Your task to perform on an android device: open app "Mercado Libre" Image 0: 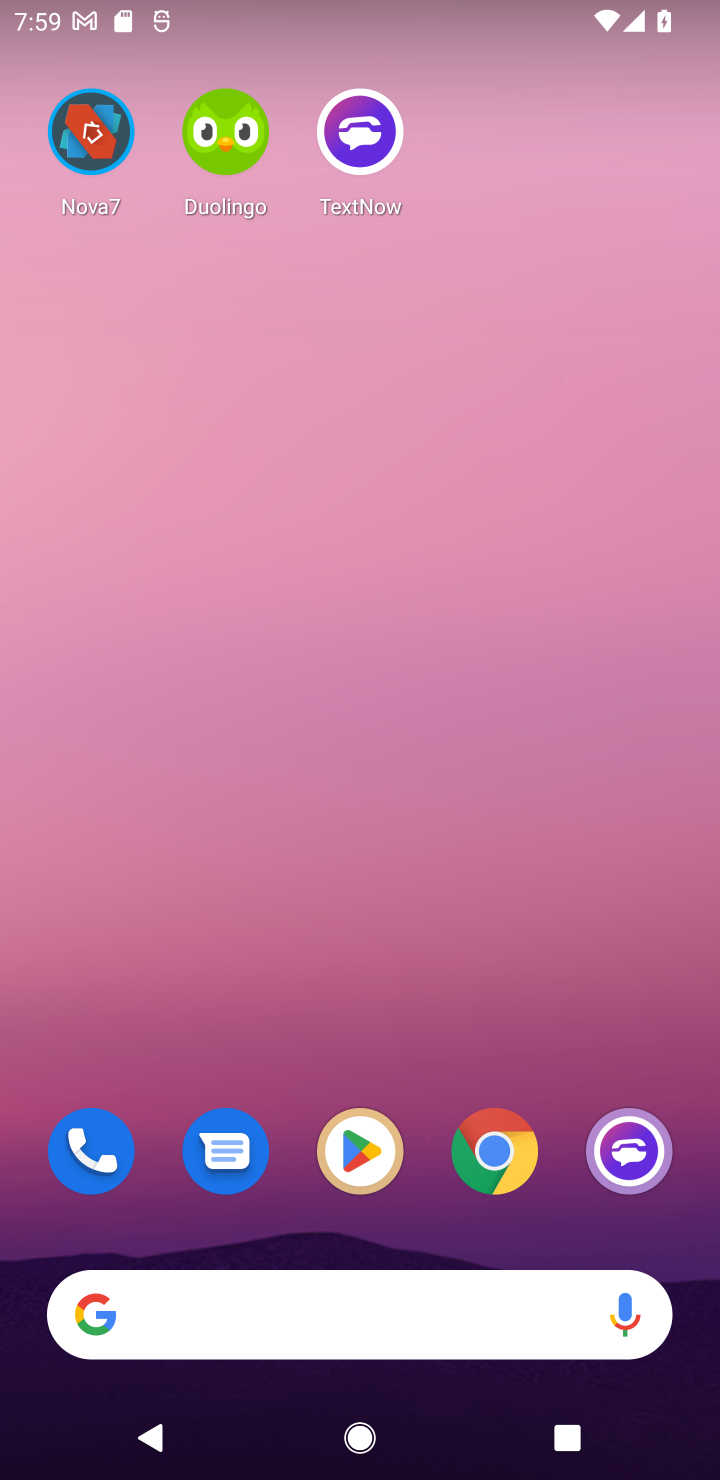
Step 0: click (355, 1157)
Your task to perform on an android device: open app "Mercado Libre" Image 1: 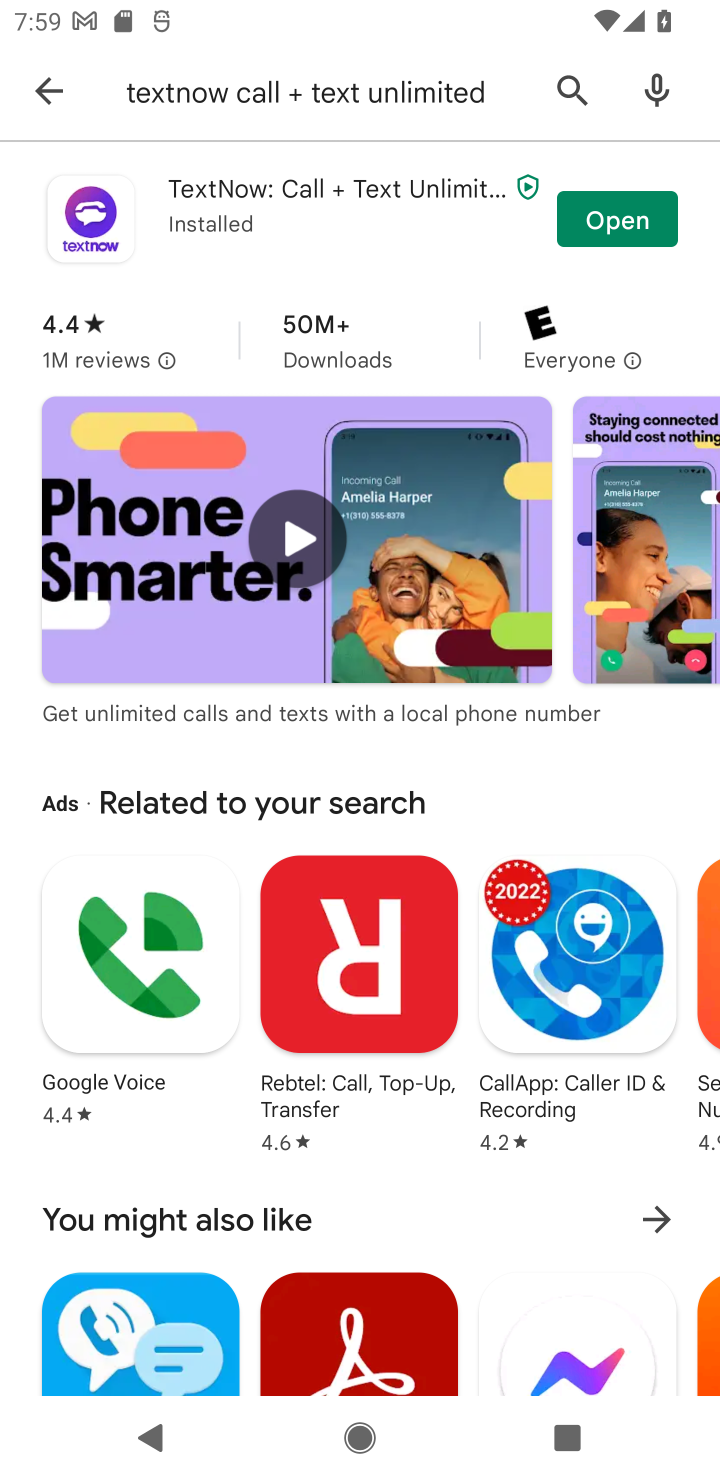
Step 1: click (41, 89)
Your task to perform on an android device: open app "Mercado Libre" Image 2: 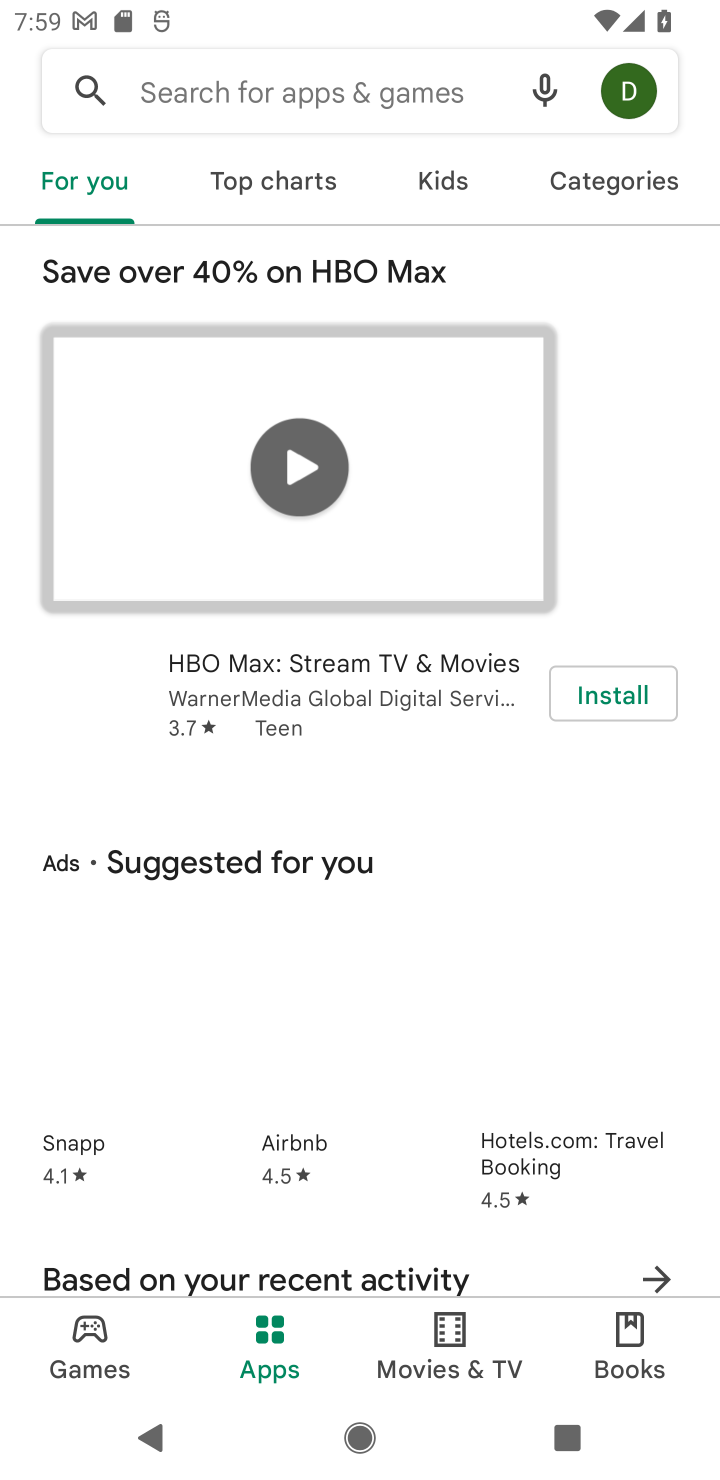
Step 2: click (43, 89)
Your task to perform on an android device: open app "Mercado Libre" Image 3: 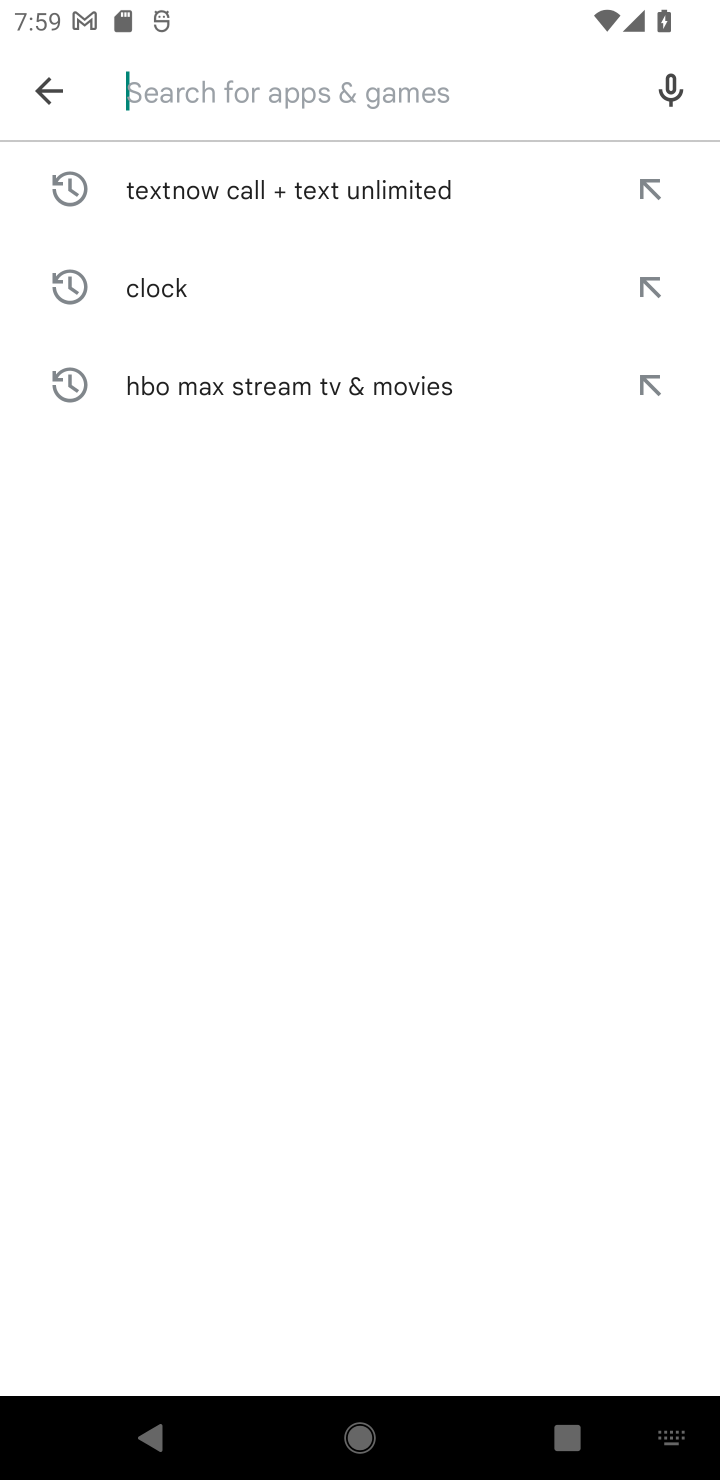
Step 3: click (190, 89)
Your task to perform on an android device: open app "Mercado Libre" Image 4: 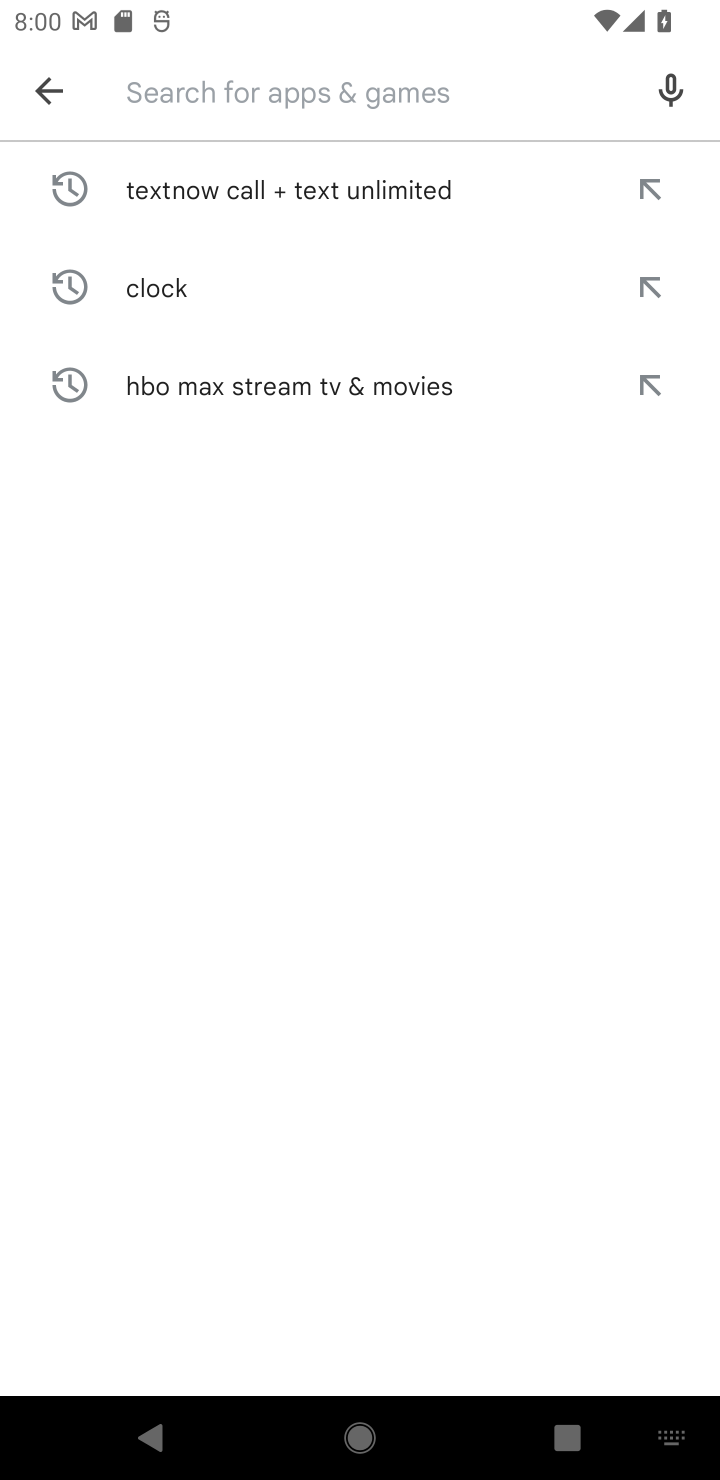
Step 4: type "Mercado Libre"
Your task to perform on an android device: open app "Mercado Libre" Image 5: 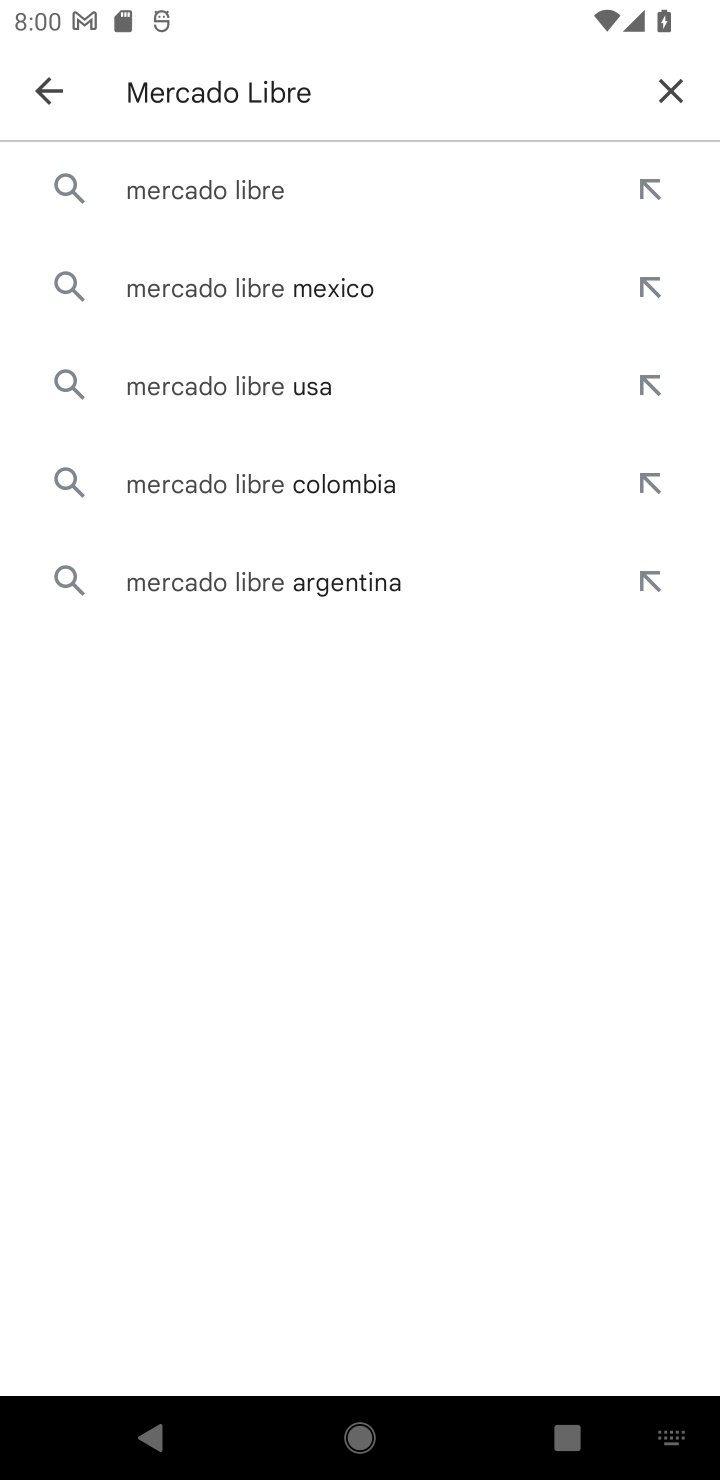
Step 5: click (203, 189)
Your task to perform on an android device: open app "Mercado Libre" Image 6: 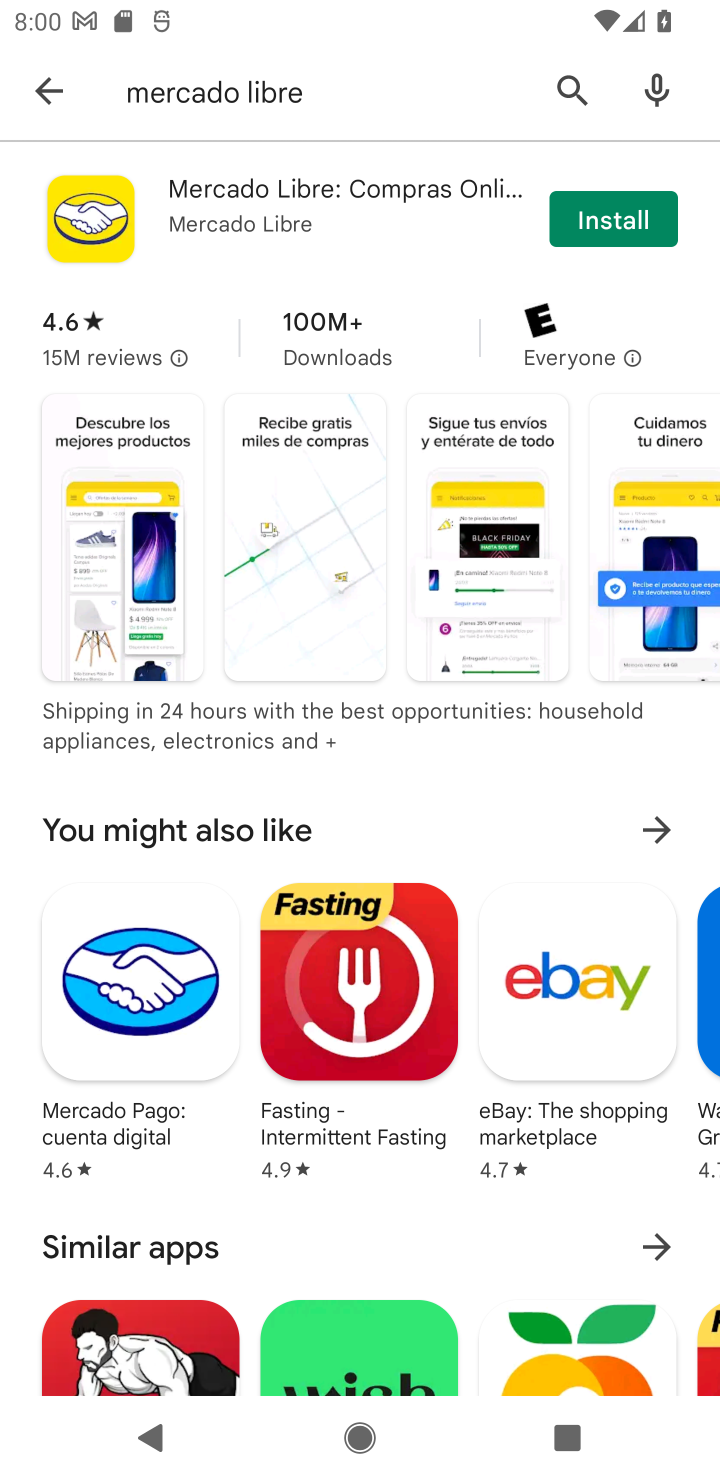
Step 6: click (599, 220)
Your task to perform on an android device: open app "Mercado Libre" Image 7: 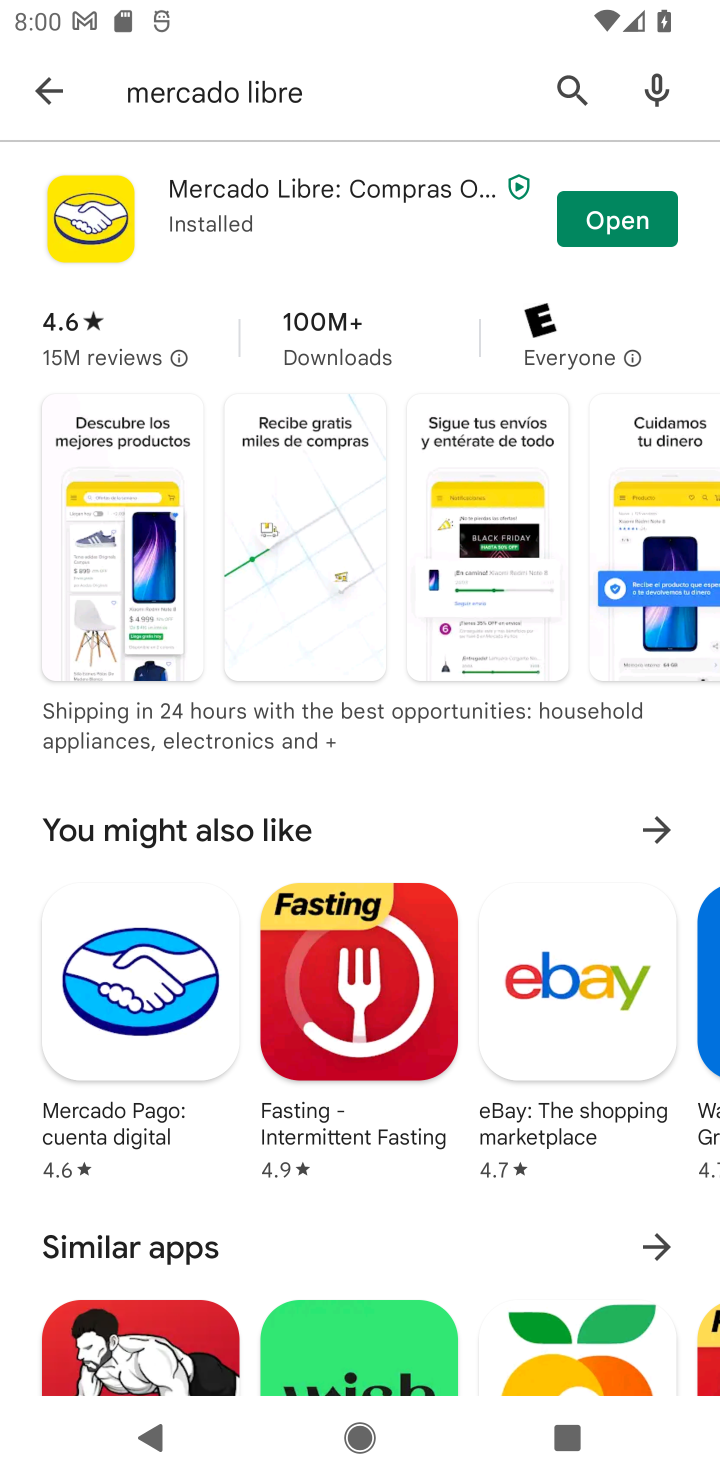
Step 7: click (599, 220)
Your task to perform on an android device: open app "Mercado Libre" Image 8: 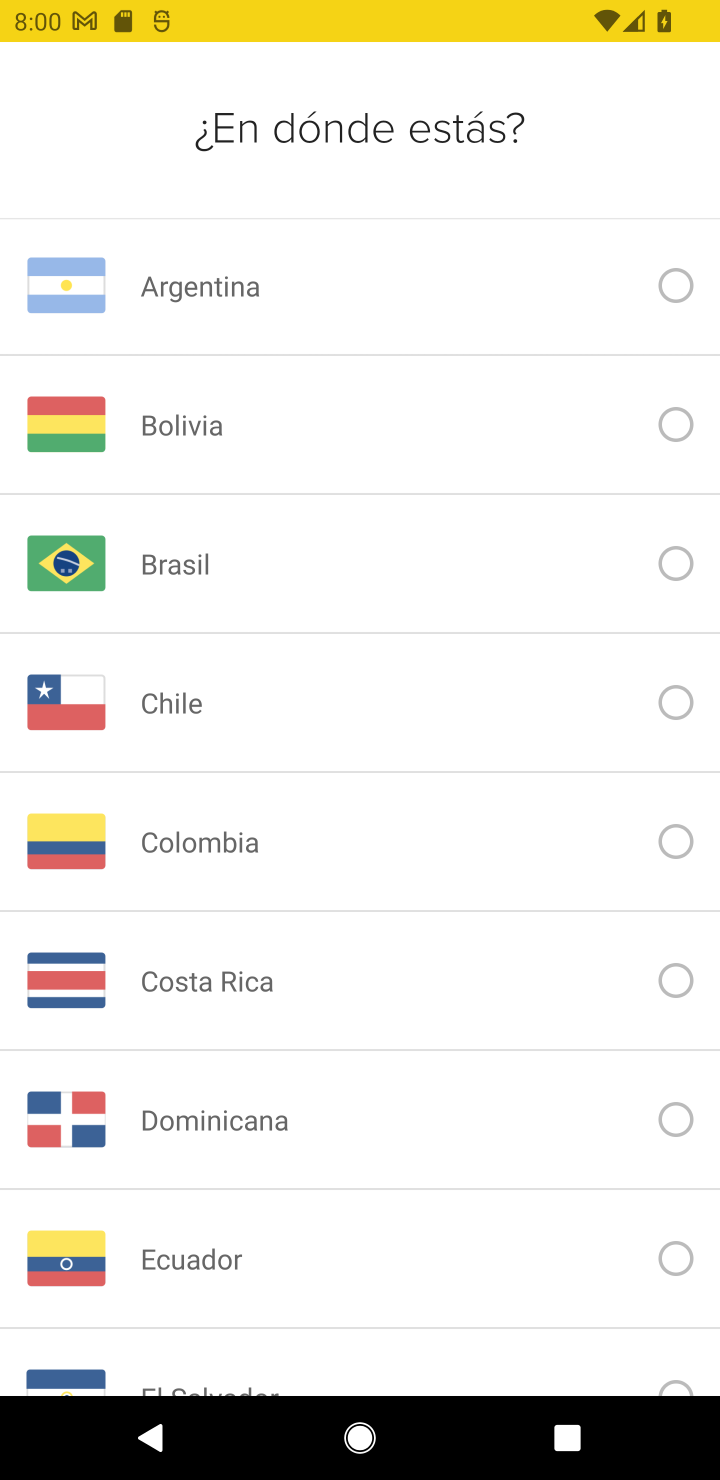
Step 8: task complete